Your task to perform on an android device: Go to Google maps Image 0: 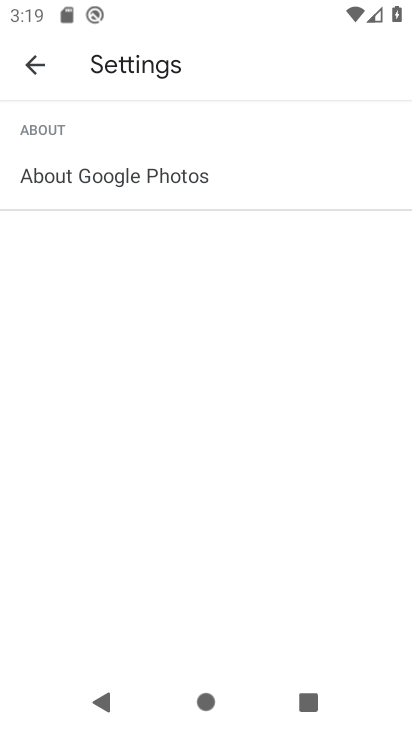
Step 0: press home button
Your task to perform on an android device: Go to Google maps Image 1: 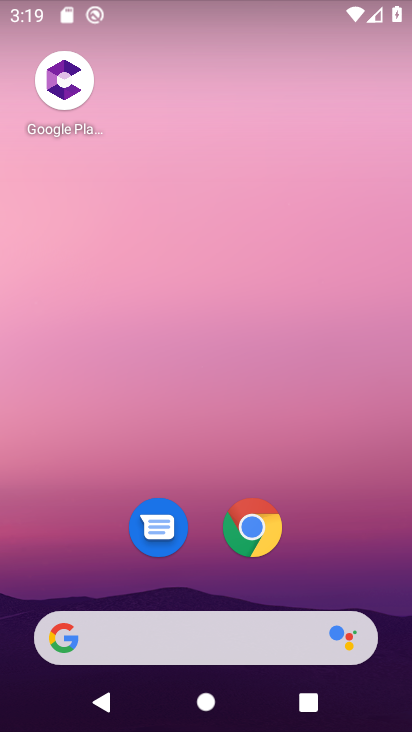
Step 1: drag from (347, 543) to (241, 71)
Your task to perform on an android device: Go to Google maps Image 2: 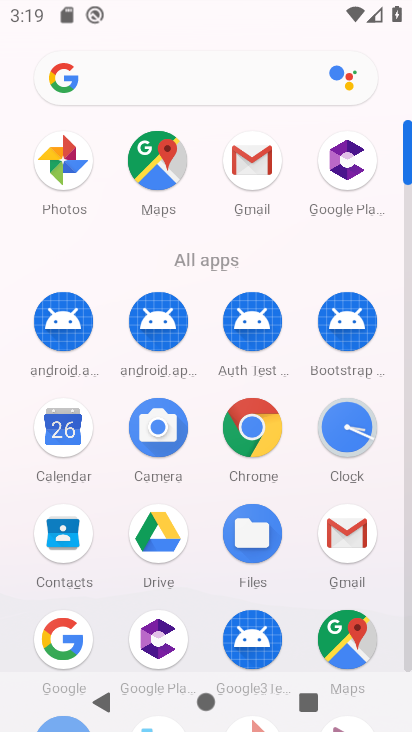
Step 2: click (170, 172)
Your task to perform on an android device: Go to Google maps Image 3: 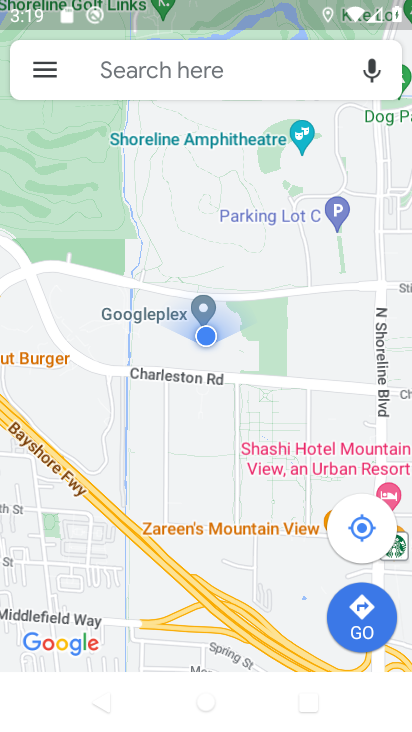
Step 3: task complete